Your task to perform on an android device: turn on wifi Image 0: 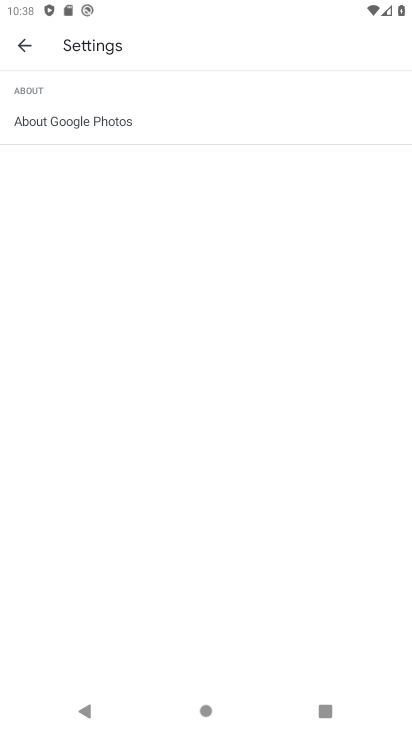
Step 0: press home button
Your task to perform on an android device: turn on wifi Image 1: 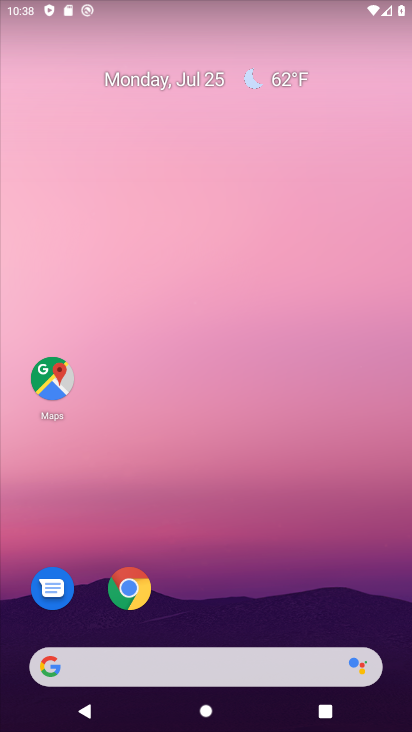
Step 1: task complete